Your task to perform on an android device: open app "LinkedIn" Image 0: 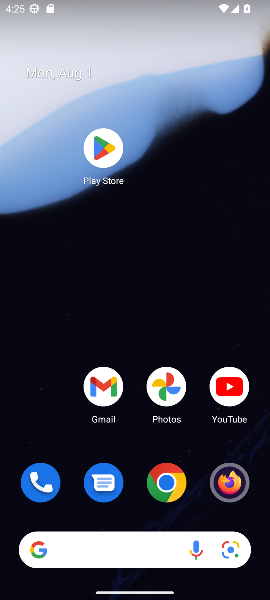
Step 0: press home button
Your task to perform on an android device: open app "LinkedIn" Image 1: 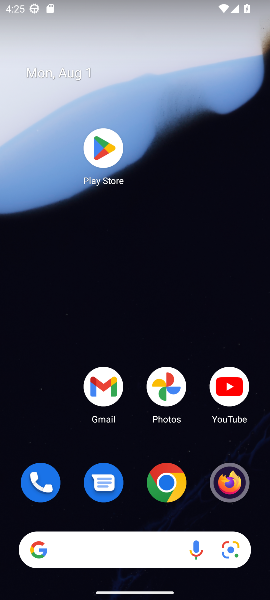
Step 1: click (109, 151)
Your task to perform on an android device: open app "LinkedIn" Image 2: 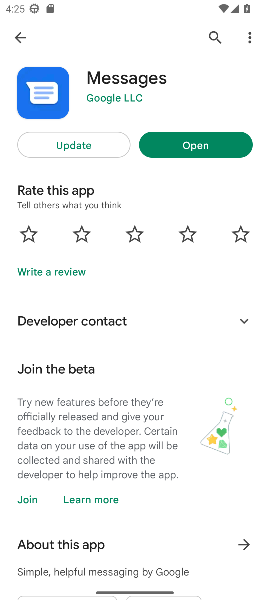
Step 2: click (208, 30)
Your task to perform on an android device: open app "LinkedIn" Image 3: 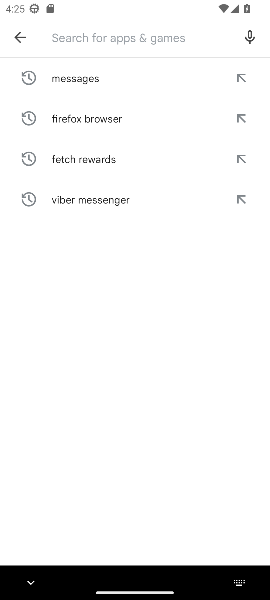
Step 3: type "LinkedIn"
Your task to perform on an android device: open app "LinkedIn" Image 4: 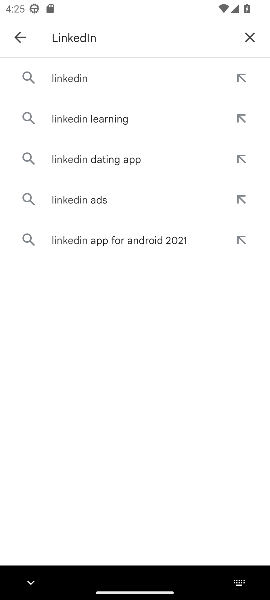
Step 4: click (73, 80)
Your task to perform on an android device: open app "LinkedIn" Image 5: 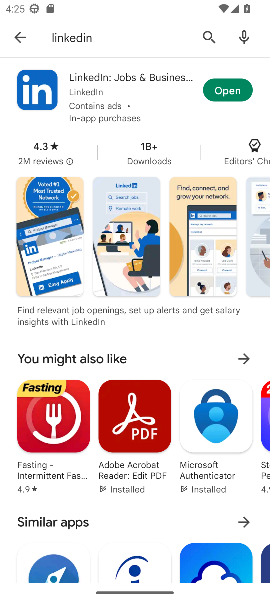
Step 5: click (233, 90)
Your task to perform on an android device: open app "LinkedIn" Image 6: 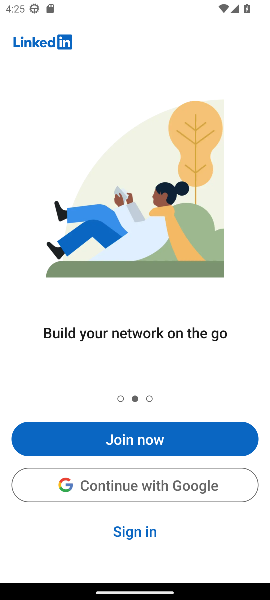
Step 6: task complete